Your task to perform on an android device: check storage Image 0: 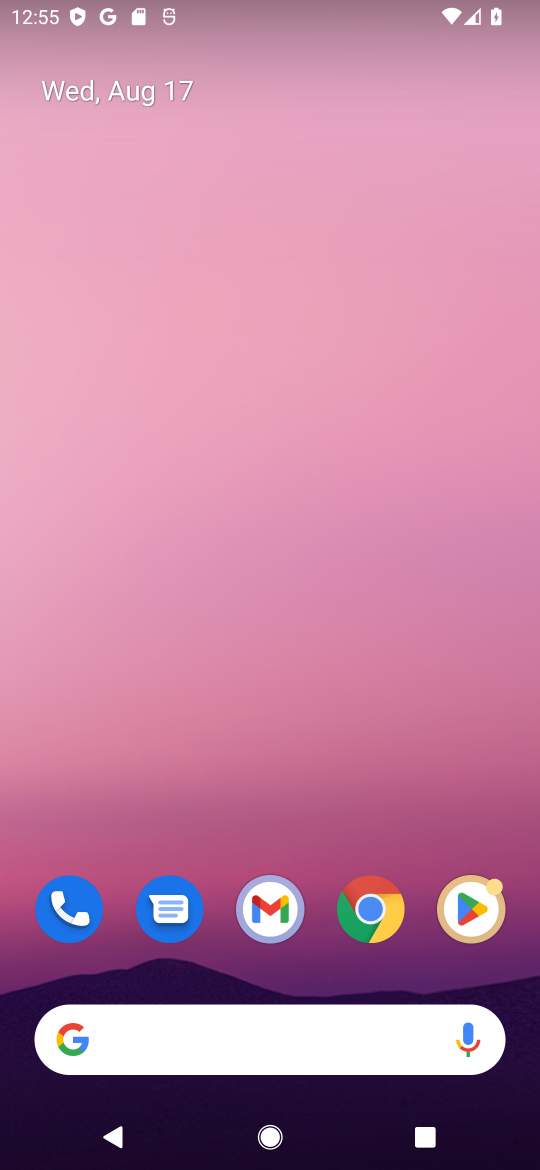
Step 0: drag from (298, 800) to (212, 109)
Your task to perform on an android device: check storage Image 1: 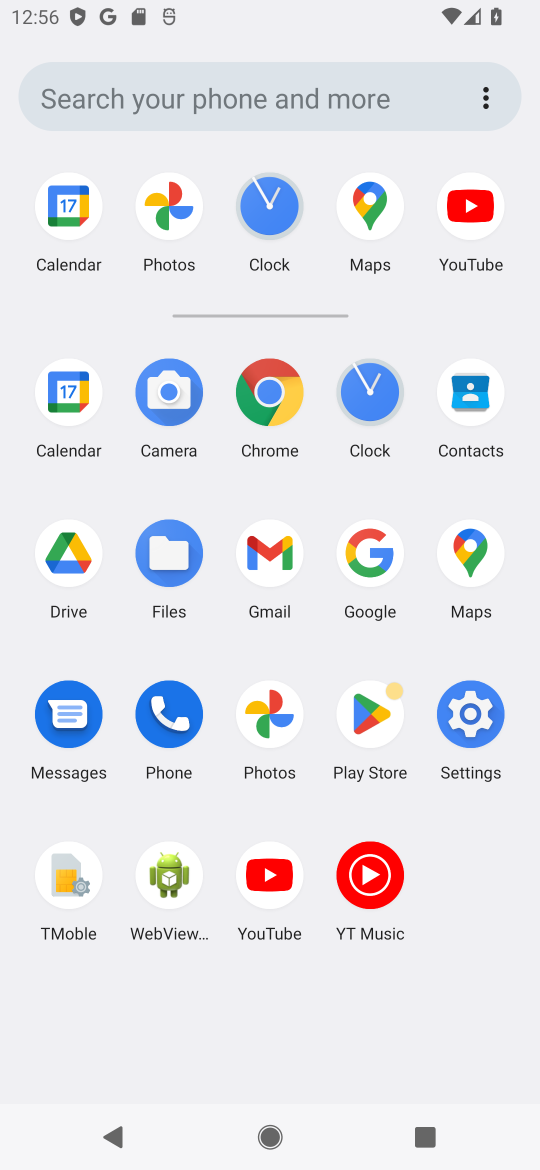
Step 1: click (471, 715)
Your task to perform on an android device: check storage Image 2: 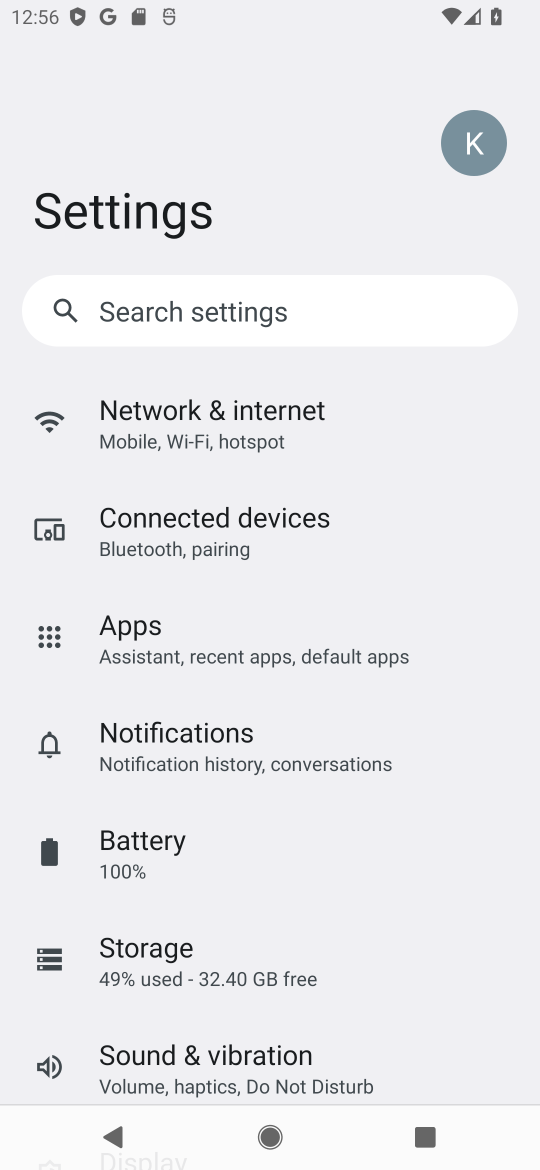
Step 2: click (156, 936)
Your task to perform on an android device: check storage Image 3: 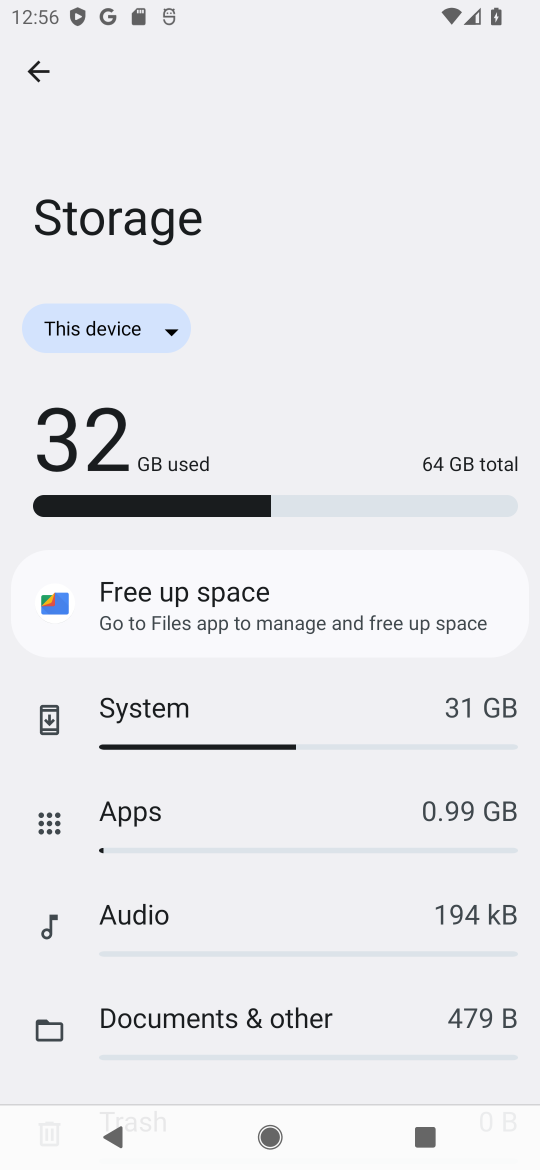
Step 3: task complete